Your task to perform on an android device: Play the last video I watched on Youtube Image 0: 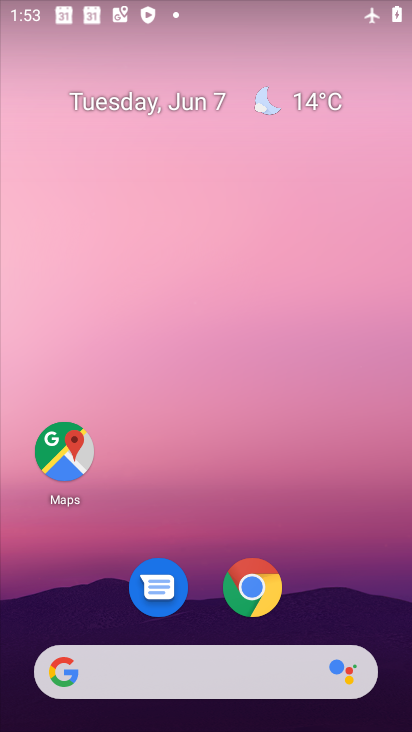
Step 0: drag from (205, 627) to (222, 169)
Your task to perform on an android device: Play the last video I watched on Youtube Image 1: 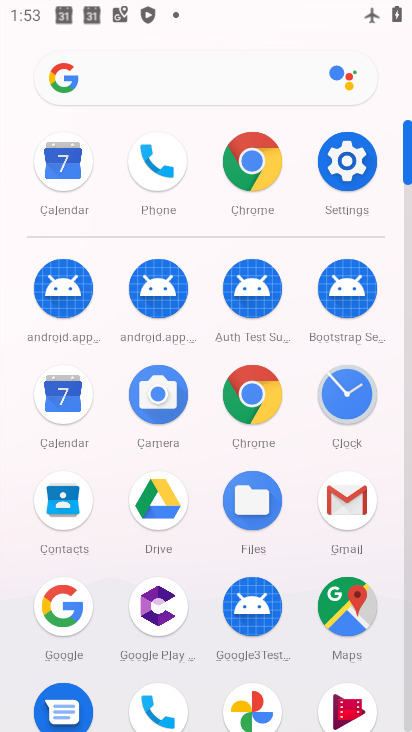
Step 1: drag from (225, 623) to (248, 260)
Your task to perform on an android device: Play the last video I watched on Youtube Image 2: 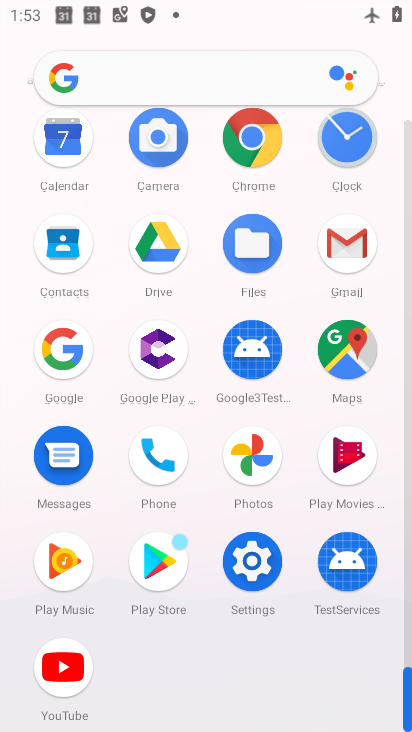
Step 2: click (81, 664)
Your task to perform on an android device: Play the last video I watched on Youtube Image 3: 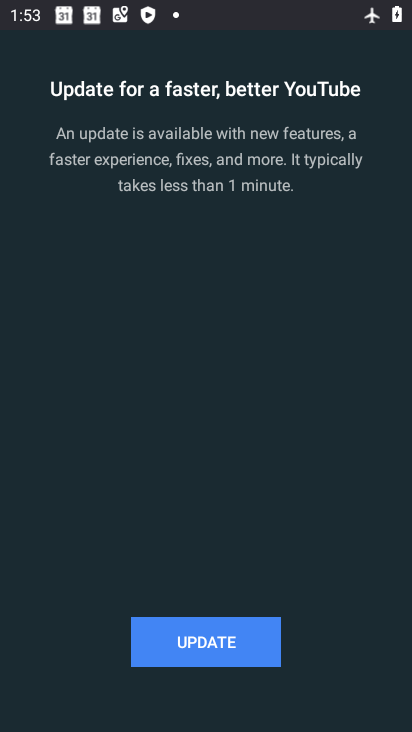
Step 3: click (214, 644)
Your task to perform on an android device: Play the last video I watched on Youtube Image 4: 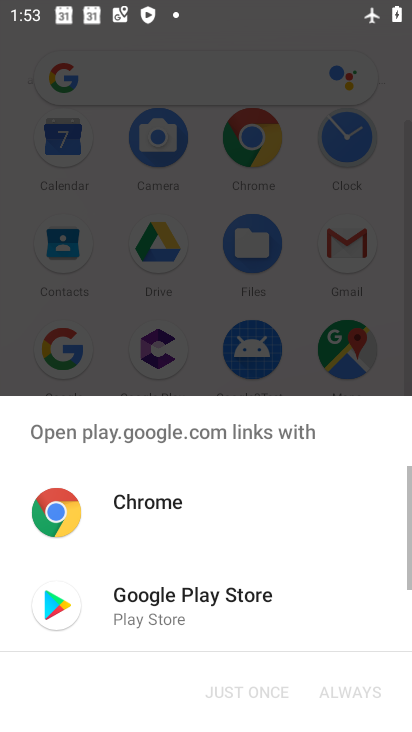
Step 4: click (174, 609)
Your task to perform on an android device: Play the last video I watched on Youtube Image 5: 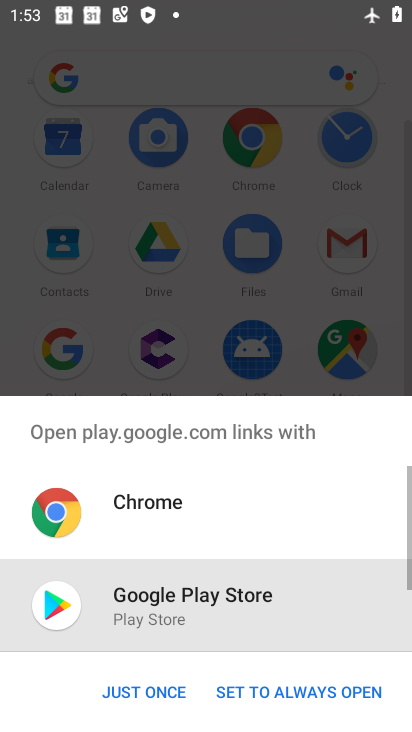
Step 5: click (146, 687)
Your task to perform on an android device: Play the last video I watched on Youtube Image 6: 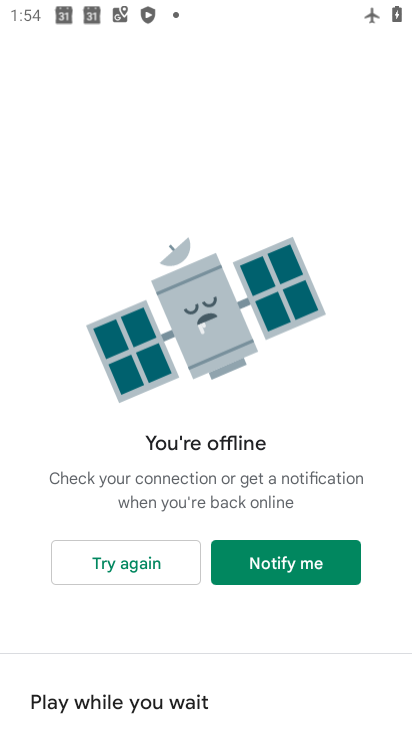
Step 6: task complete